Your task to perform on an android device: Open Wikipedia Image 0: 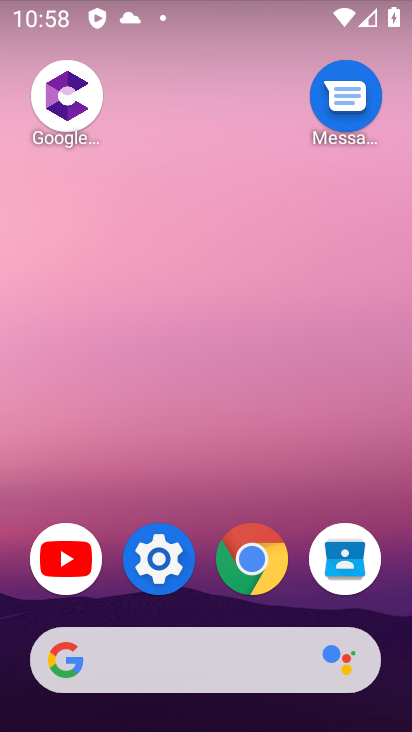
Step 0: click (248, 560)
Your task to perform on an android device: Open Wikipedia Image 1: 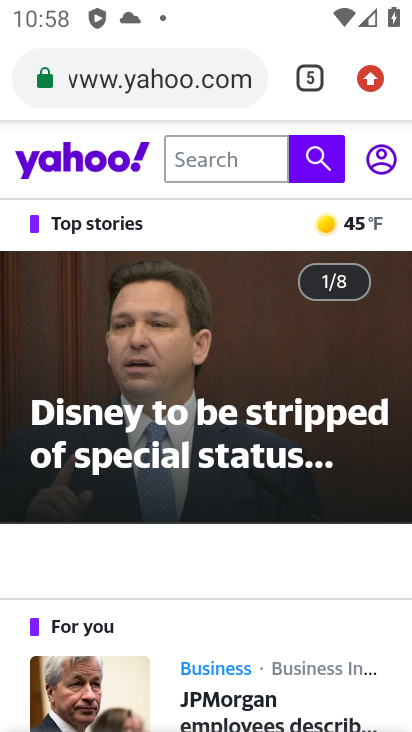
Step 1: click (362, 74)
Your task to perform on an android device: Open Wikipedia Image 2: 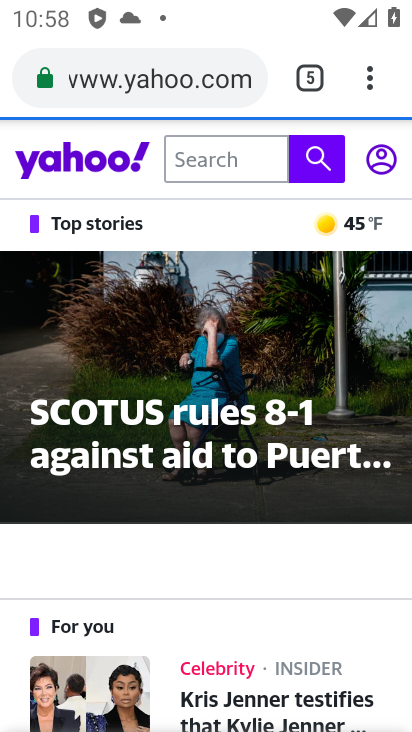
Step 2: click (370, 73)
Your task to perform on an android device: Open Wikipedia Image 3: 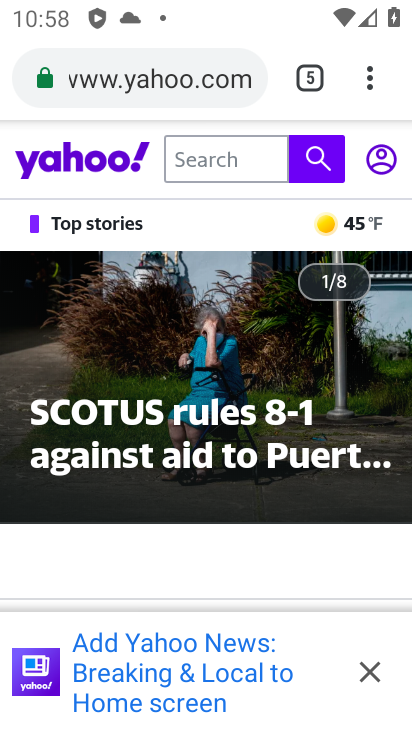
Step 3: click (370, 83)
Your task to perform on an android device: Open Wikipedia Image 4: 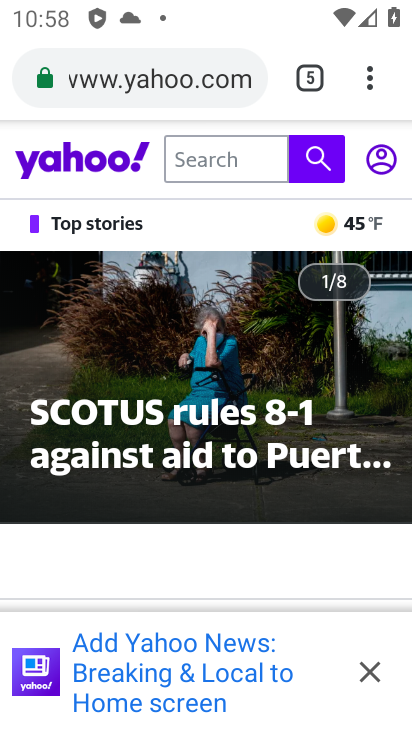
Step 4: click (368, 69)
Your task to perform on an android device: Open Wikipedia Image 5: 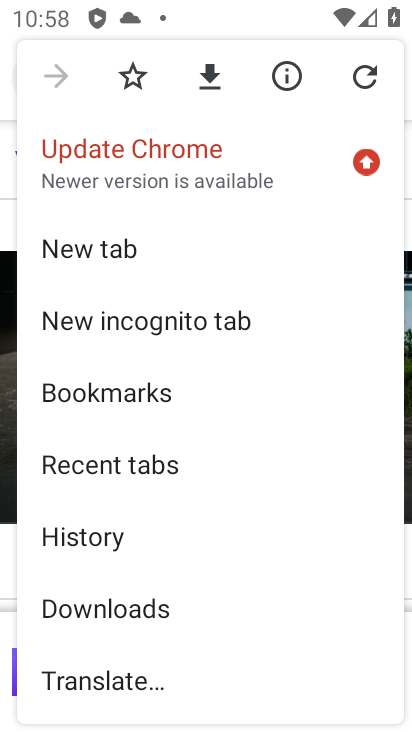
Step 5: click (85, 246)
Your task to perform on an android device: Open Wikipedia Image 6: 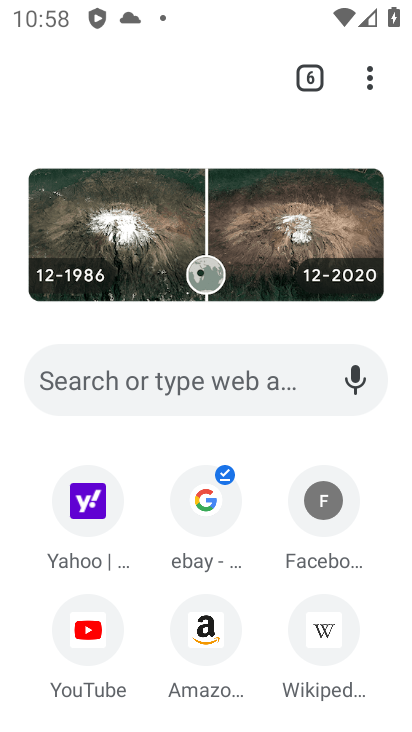
Step 6: click (323, 637)
Your task to perform on an android device: Open Wikipedia Image 7: 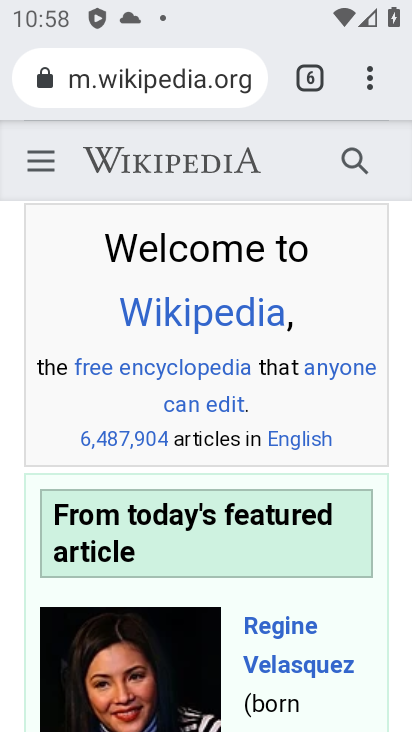
Step 7: task complete